Your task to perform on an android device: Is it going to rain today? Image 0: 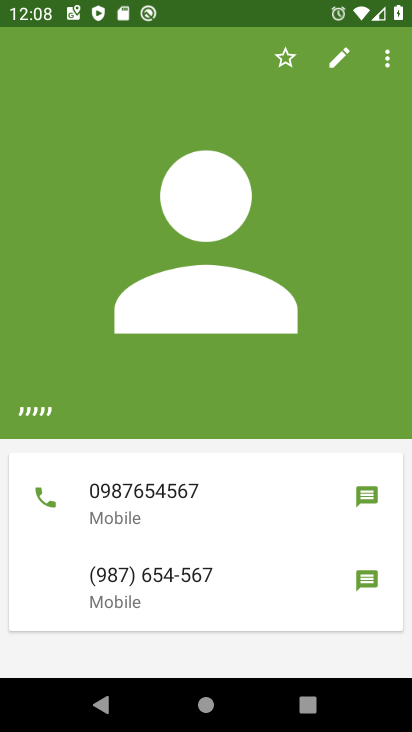
Step 0: press home button
Your task to perform on an android device: Is it going to rain today? Image 1: 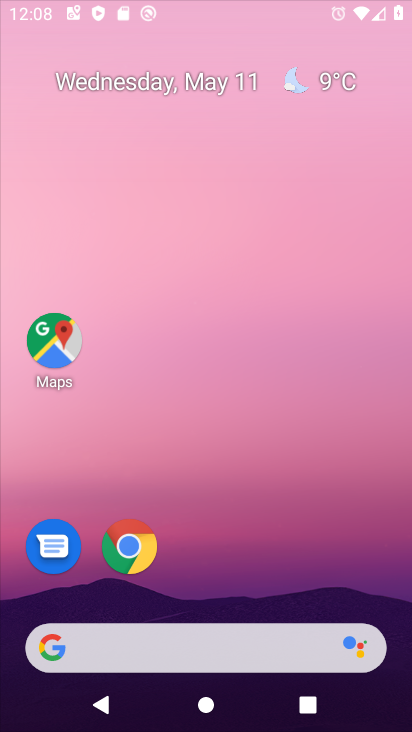
Step 1: drag from (196, 652) to (204, 16)
Your task to perform on an android device: Is it going to rain today? Image 2: 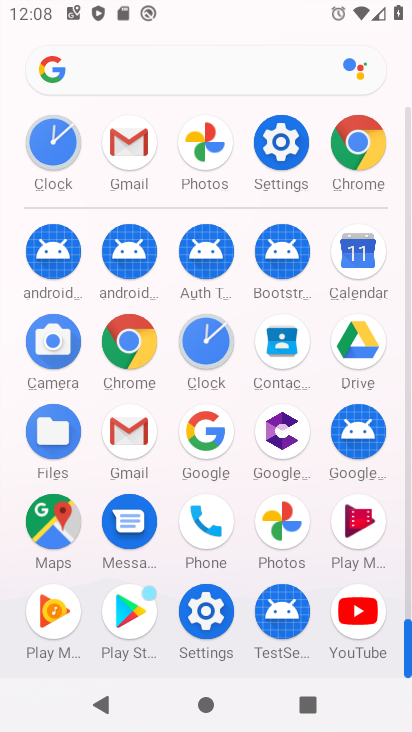
Step 2: click (205, 66)
Your task to perform on an android device: Is it going to rain today? Image 3: 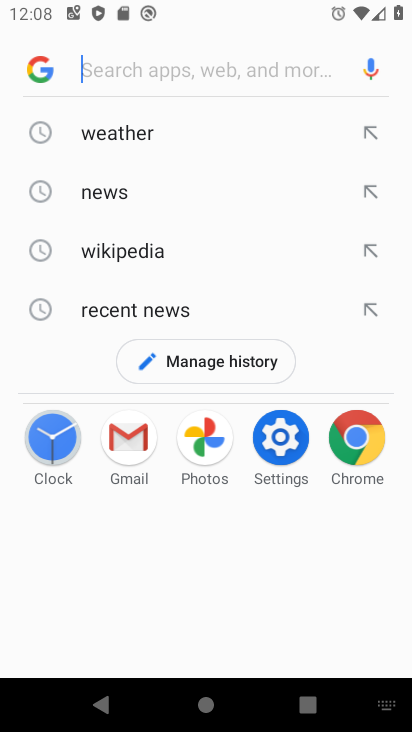
Step 3: type "rain today"
Your task to perform on an android device: Is it going to rain today? Image 4: 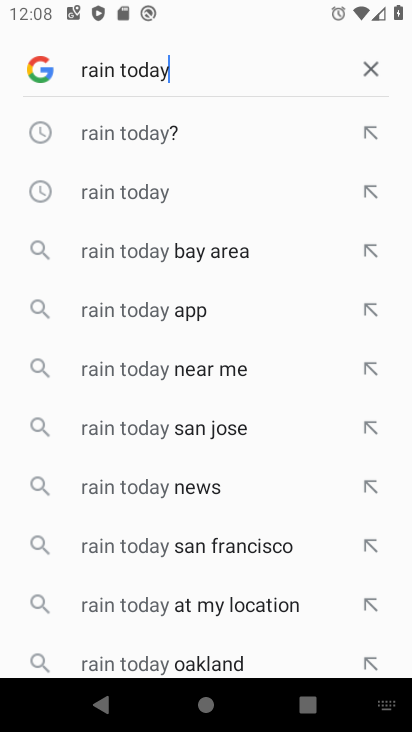
Step 4: click (140, 121)
Your task to perform on an android device: Is it going to rain today? Image 5: 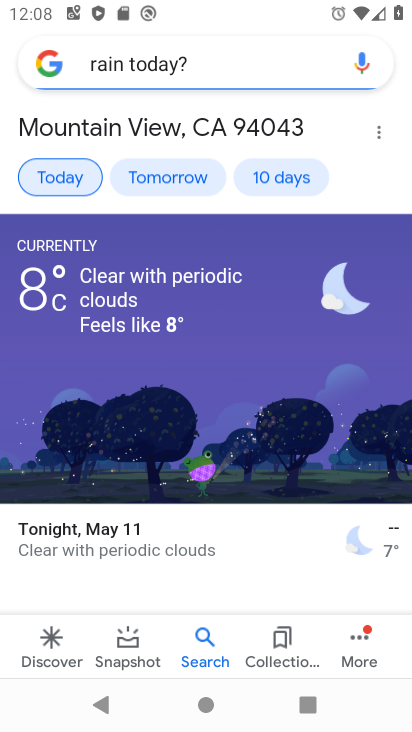
Step 5: task complete